Your task to perform on an android device: Open privacy settings Image 0: 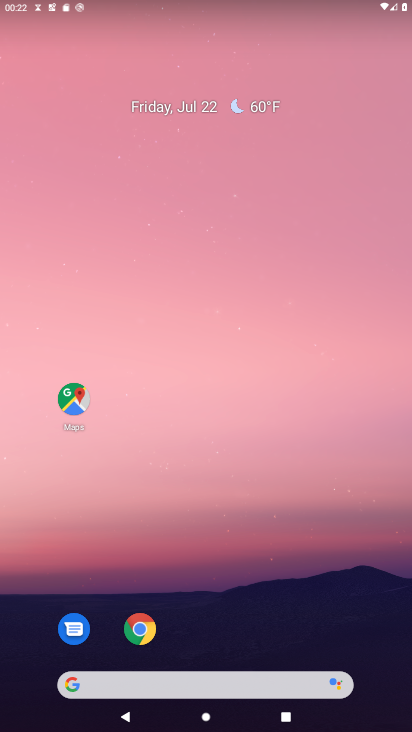
Step 0: drag from (181, 637) to (151, 236)
Your task to perform on an android device: Open privacy settings Image 1: 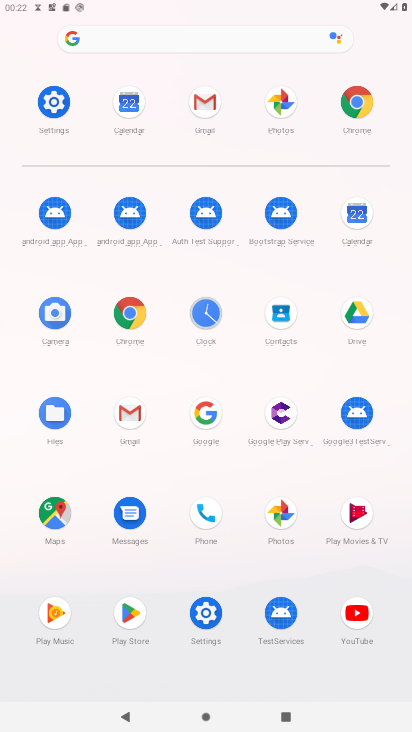
Step 1: click (47, 94)
Your task to perform on an android device: Open privacy settings Image 2: 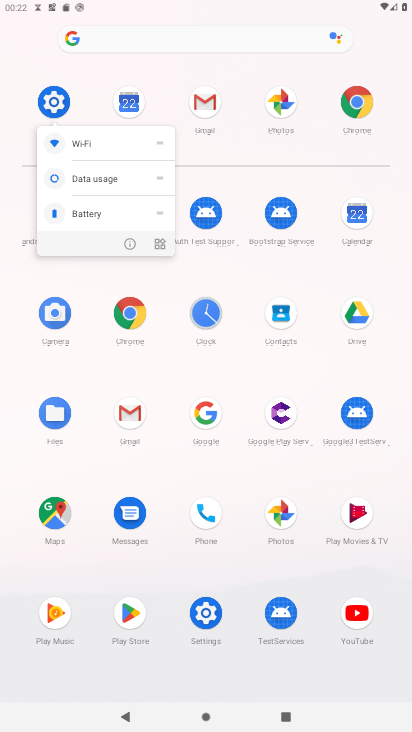
Step 2: click (49, 95)
Your task to perform on an android device: Open privacy settings Image 3: 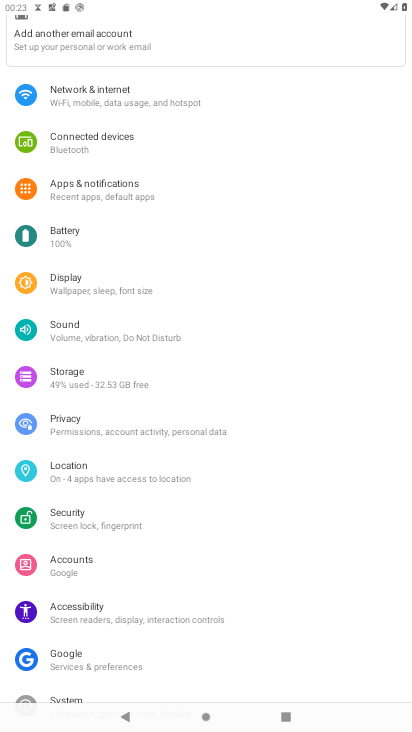
Step 3: click (96, 410)
Your task to perform on an android device: Open privacy settings Image 4: 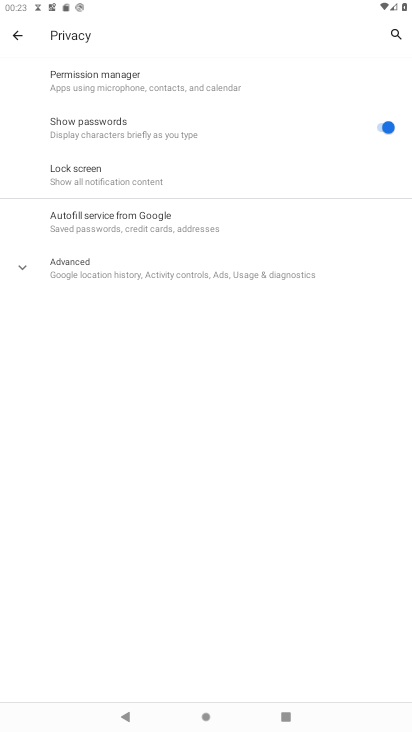
Step 4: task complete